Your task to perform on an android device: remove spam from my inbox in the gmail app Image 0: 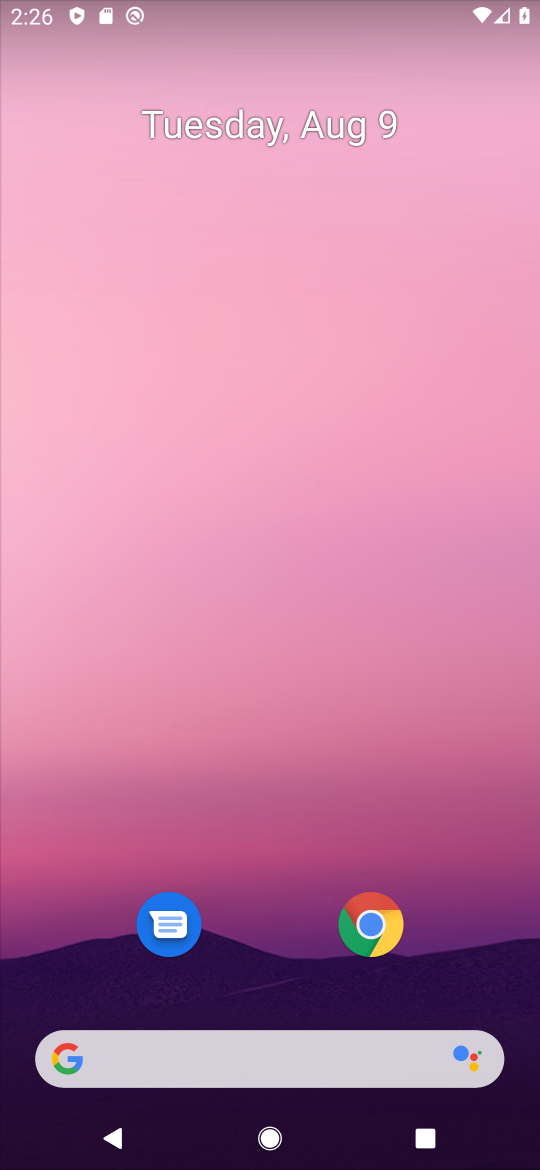
Step 0: drag from (293, 863) to (351, 1)
Your task to perform on an android device: remove spam from my inbox in the gmail app Image 1: 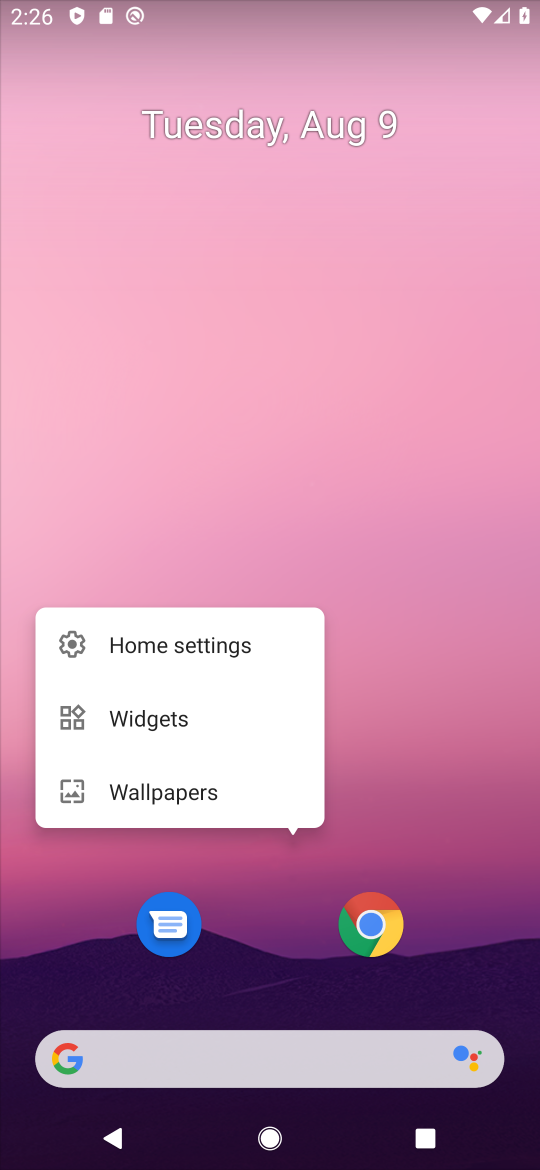
Step 1: click (405, 833)
Your task to perform on an android device: remove spam from my inbox in the gmail app Image 2: 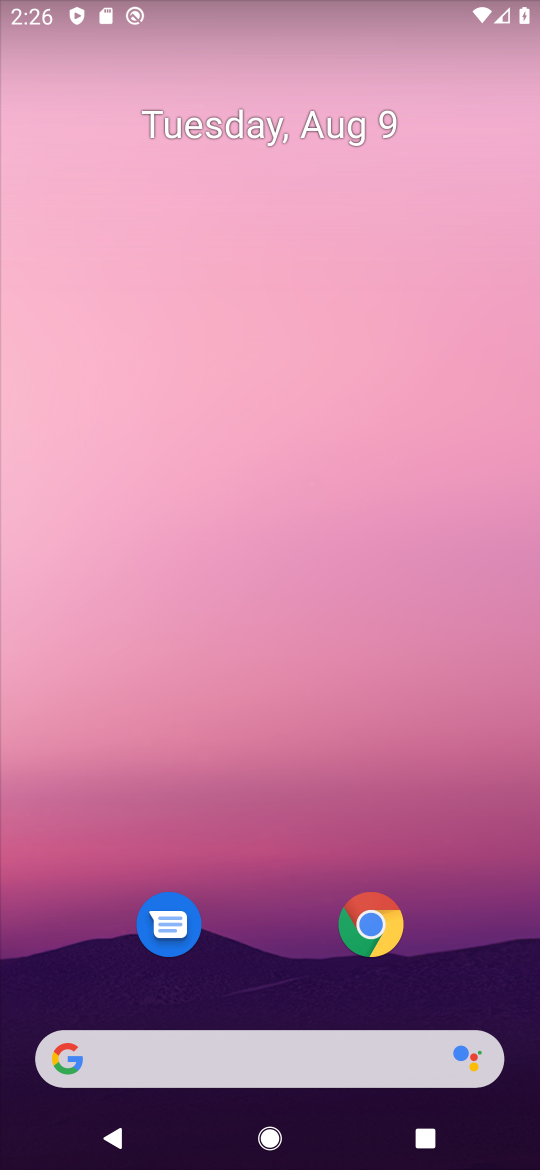
Step 2: drag from (278, 884) to (319, 0)
Your task to perform on an android device: remove spam from my inbox in the gmail app Image 3: 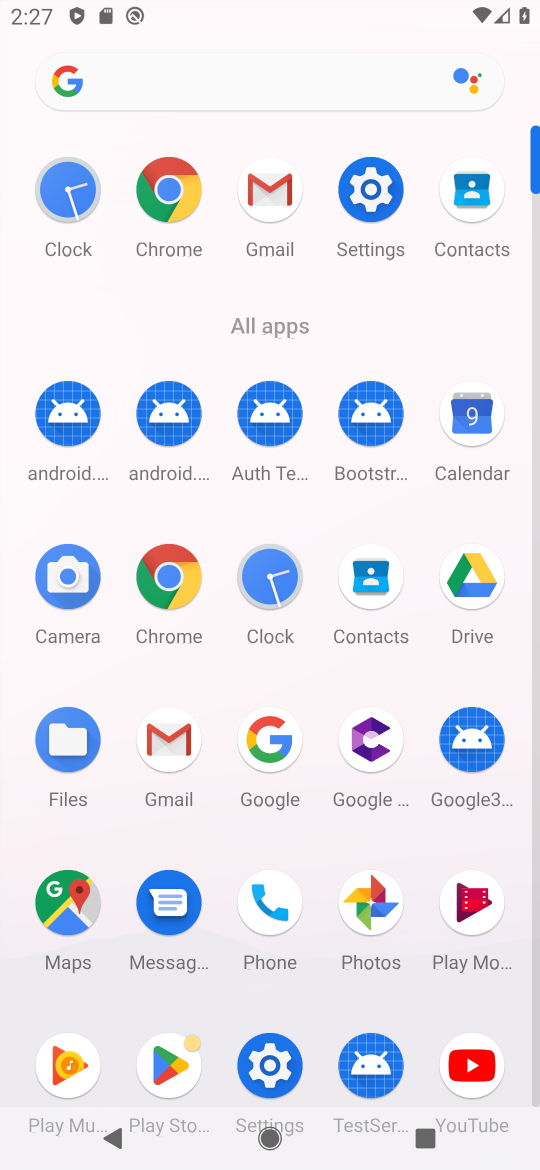
Step 3: click (275, 198)
Your task to perform on an android device: remove spam from my inbox in the gmail app Image 4: 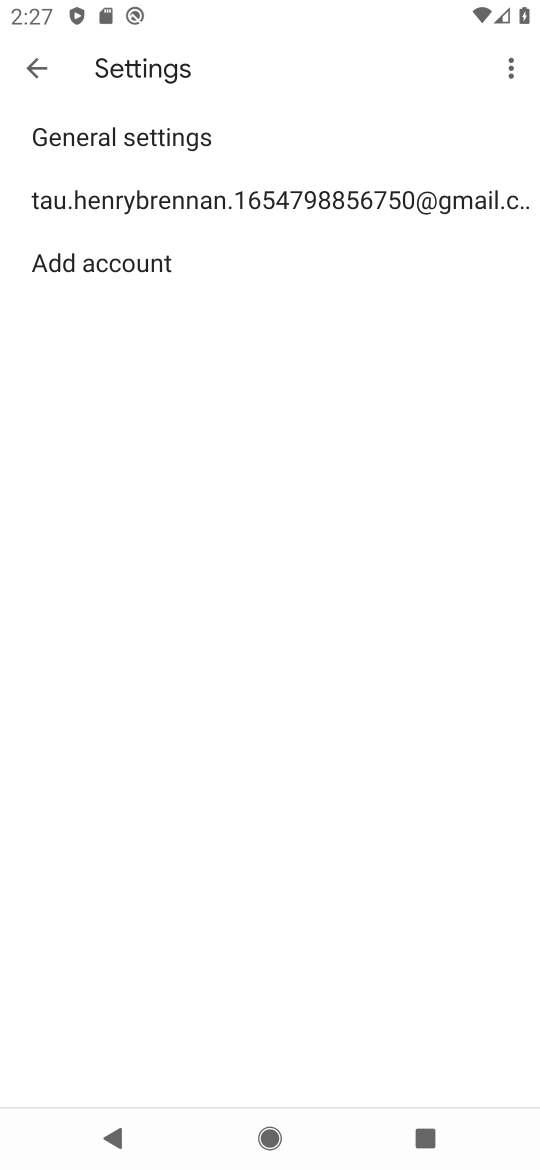
Step 4: click (31, 55)
Your task to perform on an android device: remove spam from my inbox in the gmail app Image 5: 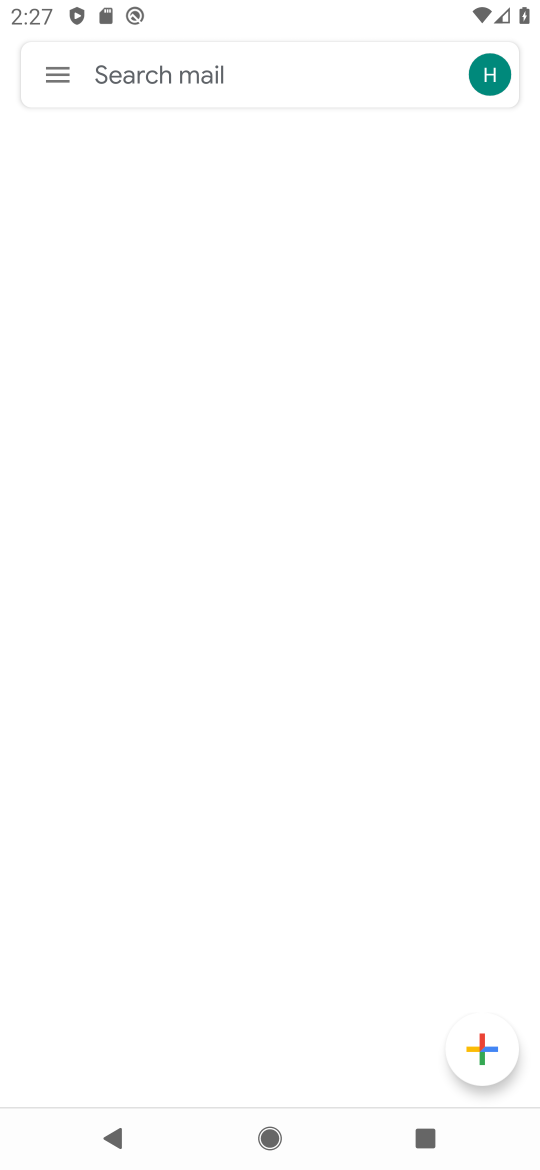
Step 5: click (50, 65)
Your task to perform on an android device: remove spam from my inbox in the gmail app Image 6: 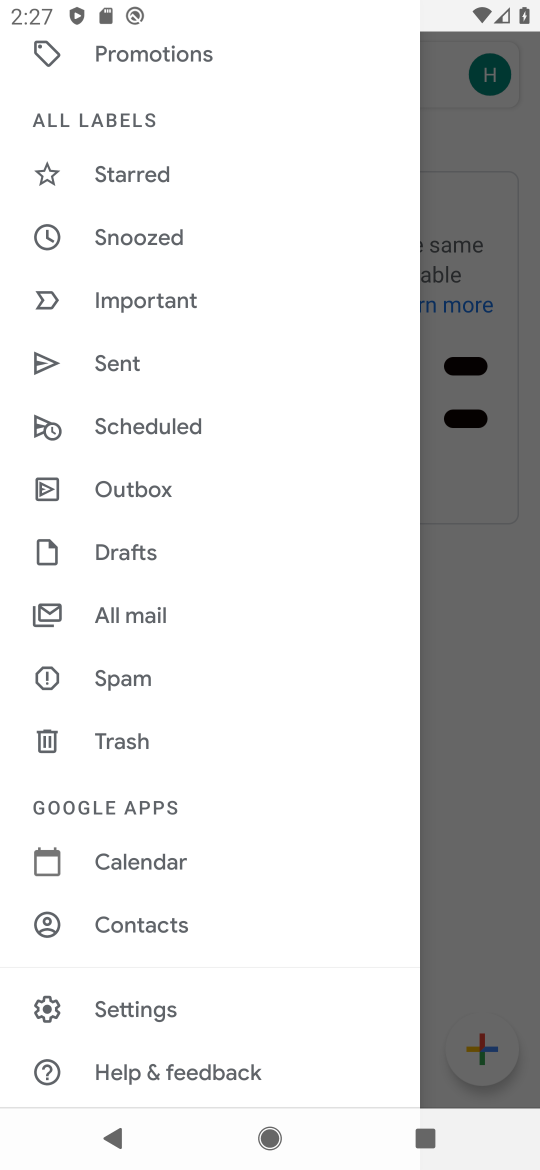
Step 6: click (141, 664)
Your task to perform on an android device: remove spam from my inbox in the gmail app Image 7: 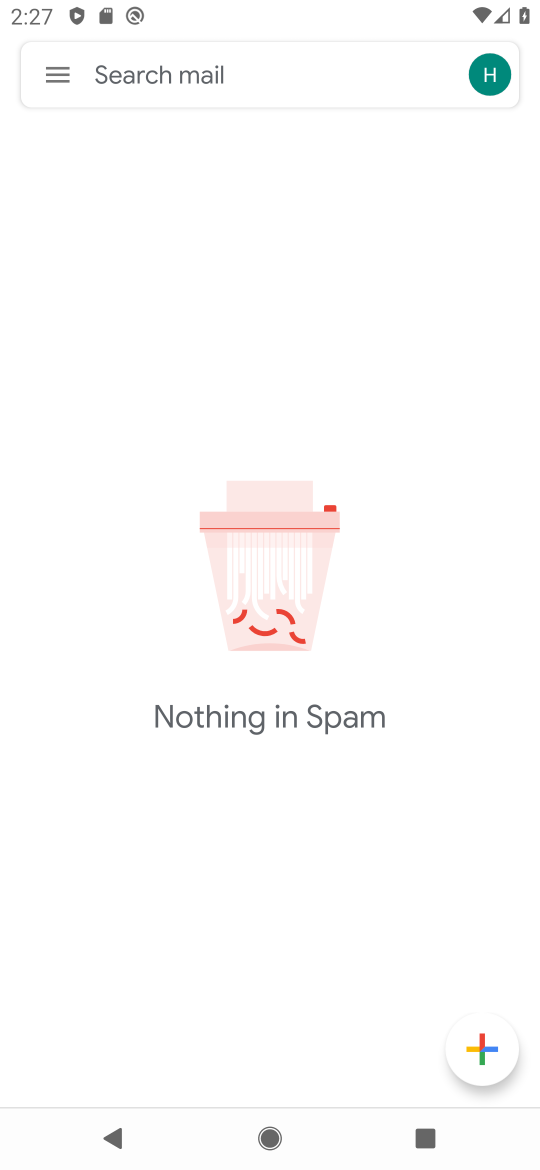
Step 7: task complete